Your task to perform on an android device: open app "Facebook" (install if not already installed) Image 0: 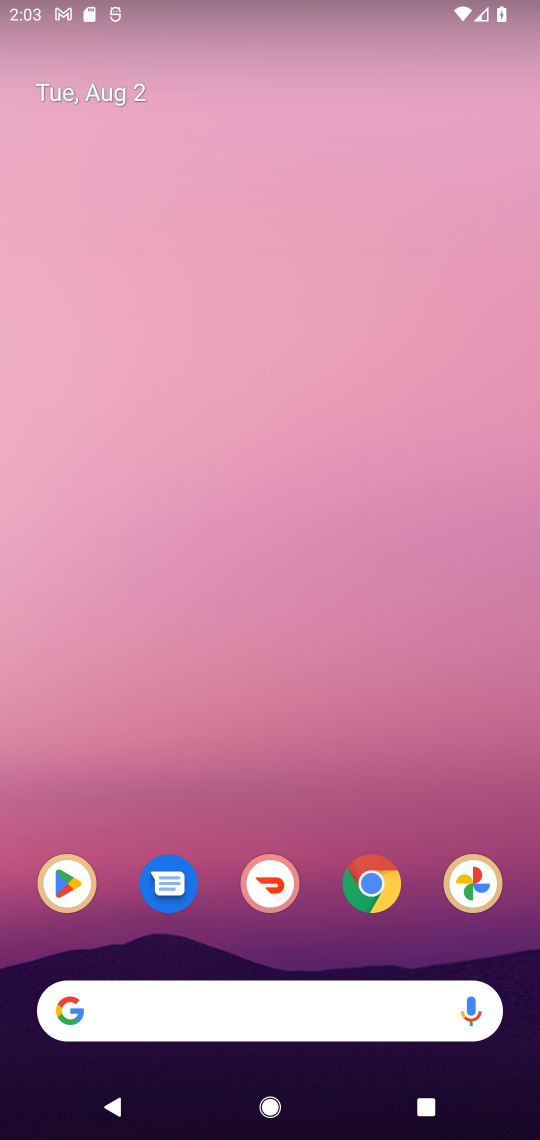
Step 0: click (66, 880)
Your task to perform on an android device: open app "Facebook" (install if not already installed) Image 1: 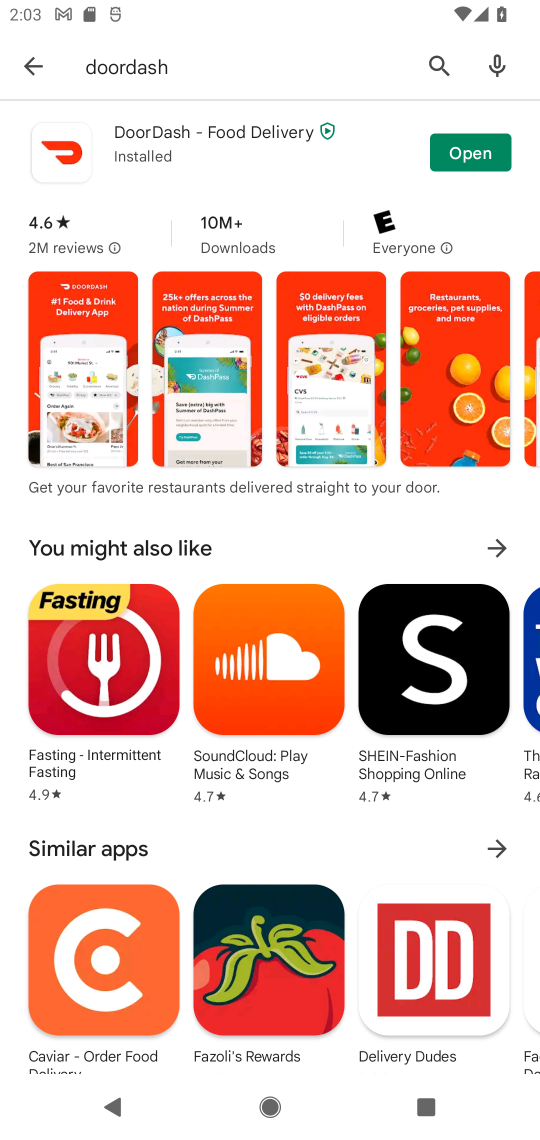
Step 1: click (437, 69)
Your task to perform on an android device: open app "Facebook" (install if not already installed) Image 2: 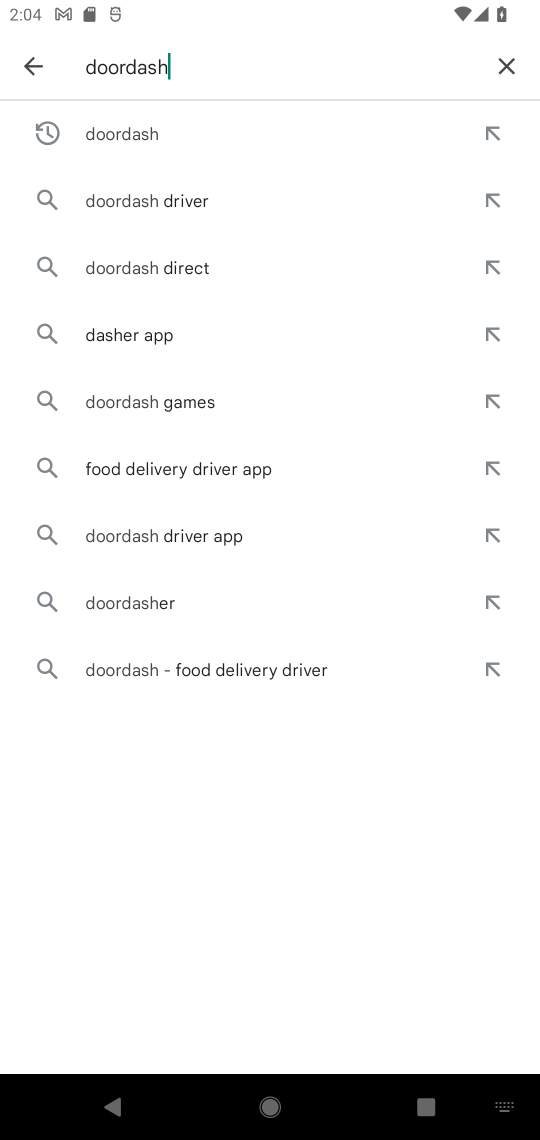
Step 2: click (497, 65)
Your task to perform on an android device: open app "Facebook" (install if not already installed) Image 3: 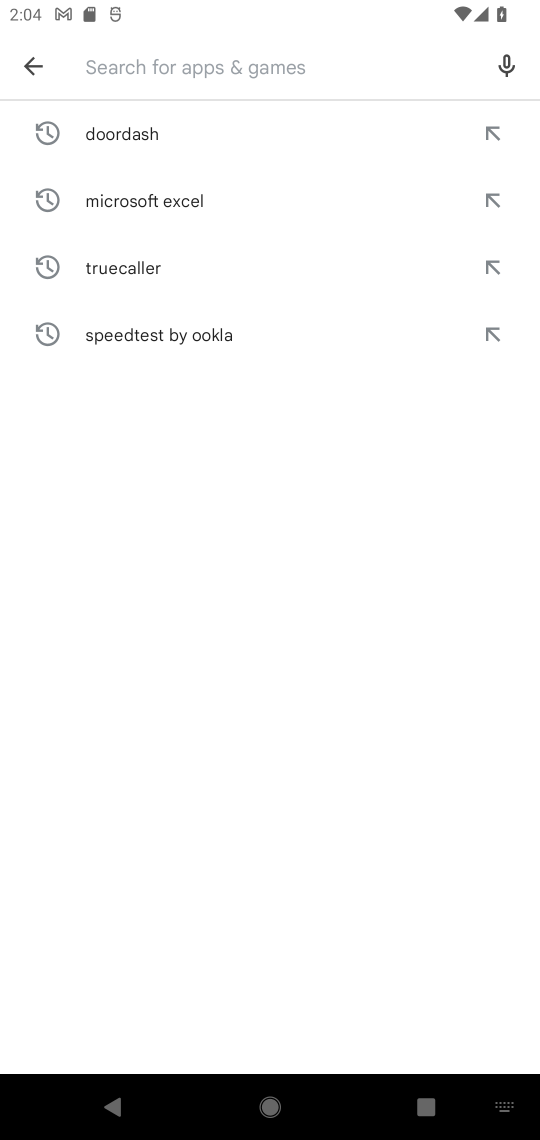
Step 3: type "Facebook"
Your task to perform on an android device: open app "Facebook" (install if not already installed) Image 4: 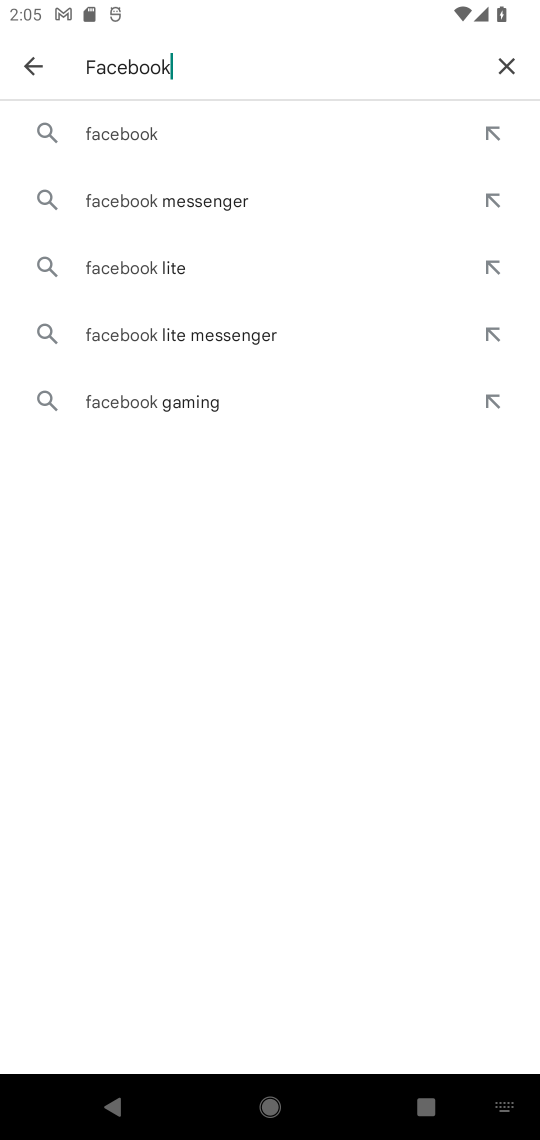
Step 4: click (127, 129)
Your task to perform on an android device: open app "Facebook" (install if not already installed) Image 5: 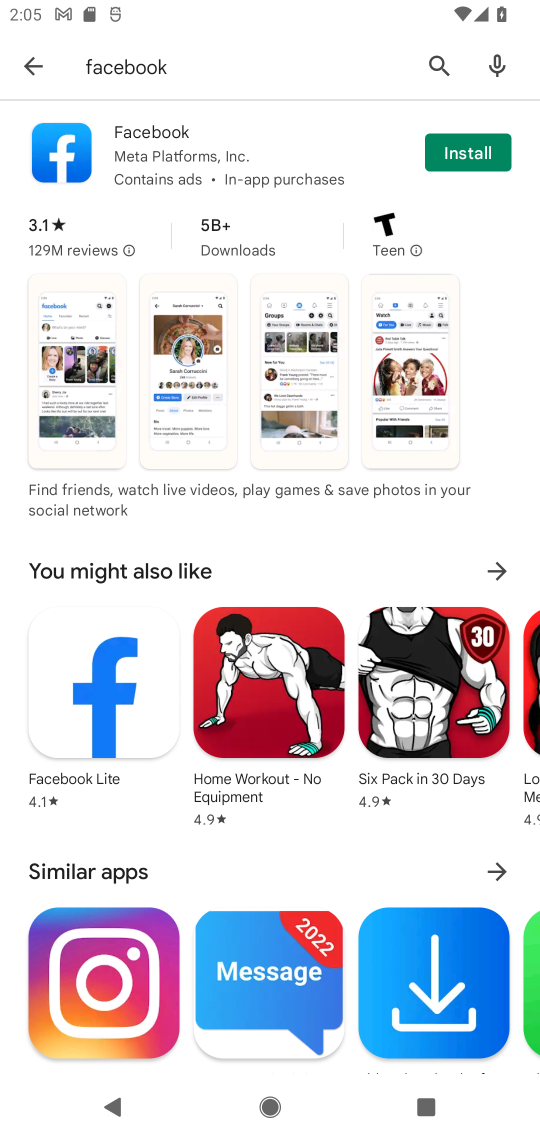
Step 5: task complete